Your task to perform on an android device: add a label to a message in the gmail app Image 0: 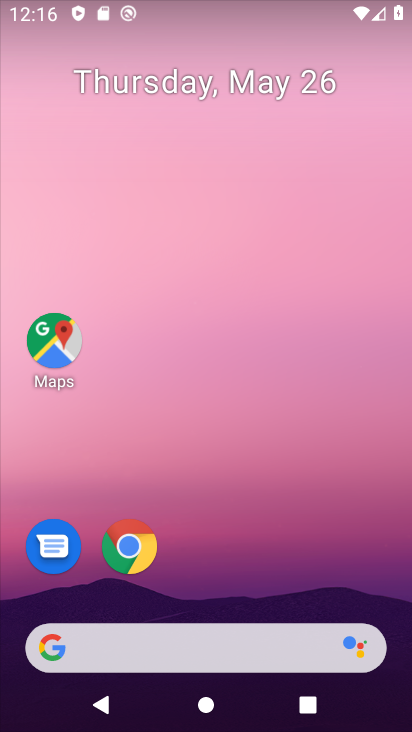
Step 0: drag from (390, 624) to (288, 54)
Your task to perform on an android device: add a label to a message in the gmail app Image 1: 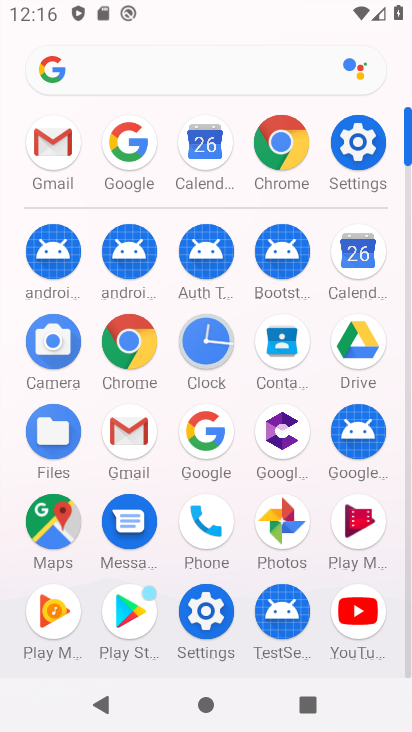
Step 1: click (134, 437)
Your task to perform on an android device: add a label to a message in the gmail app Image 2: 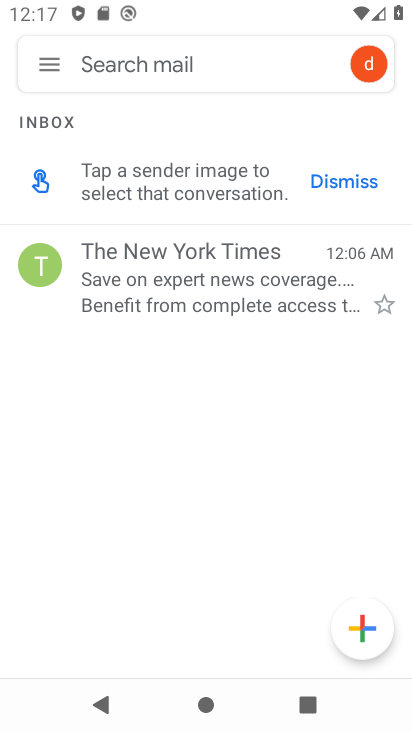
Step 2: task complete